Your task to perform on an android device: Open the map Image 0: 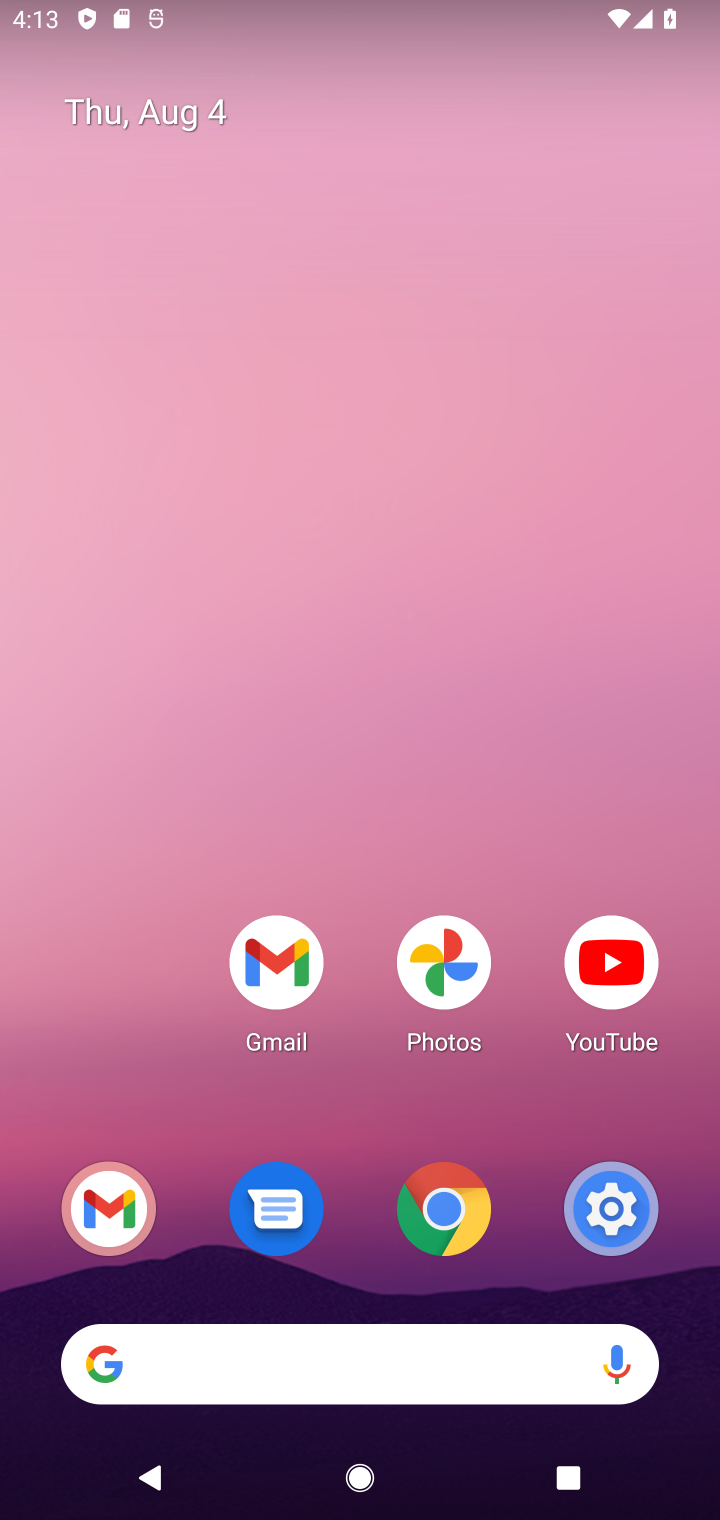
Step 0: press back button
Your task to perform on an android device: Open the map Image 1: 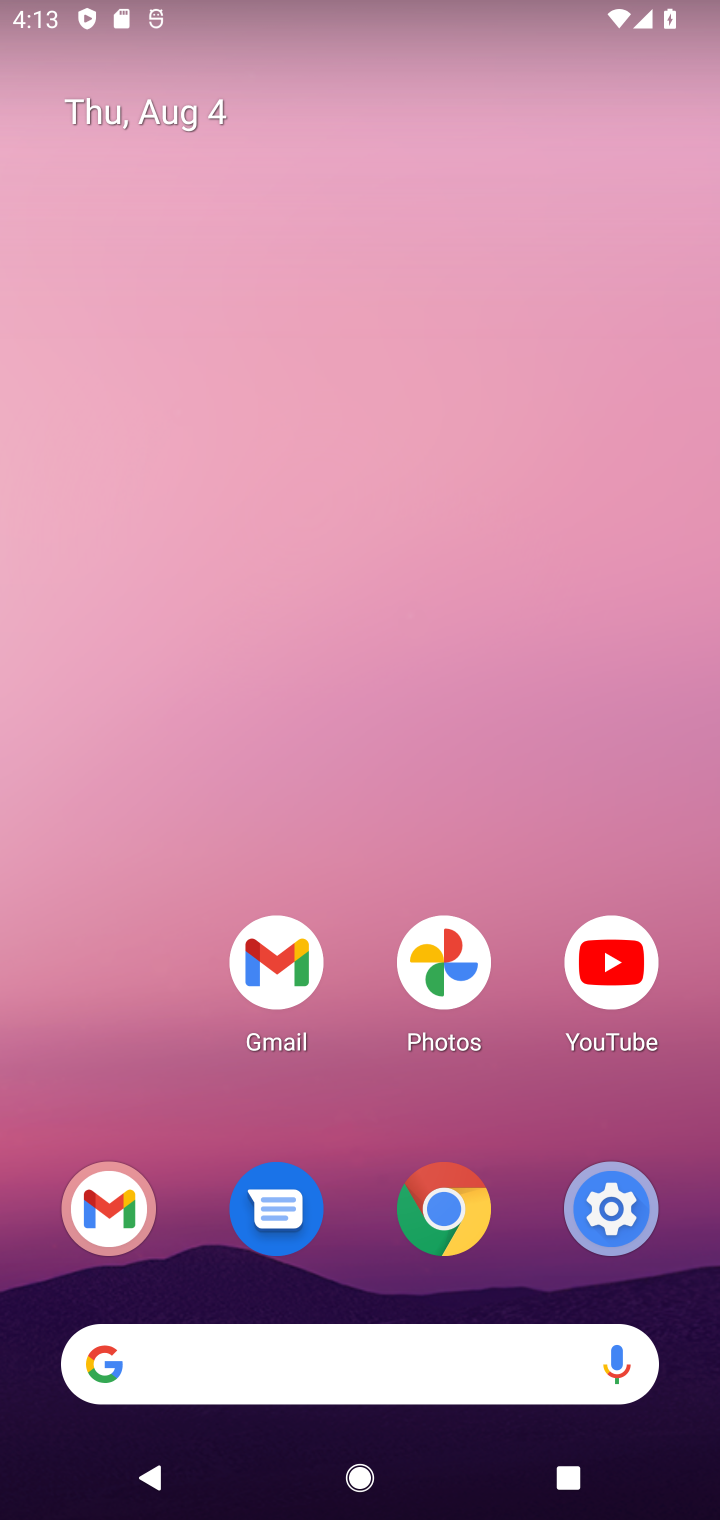
Step 1: drag from (350, 1081) to (469, 296)
Your task to perform on an android device: Open the map Image 2: 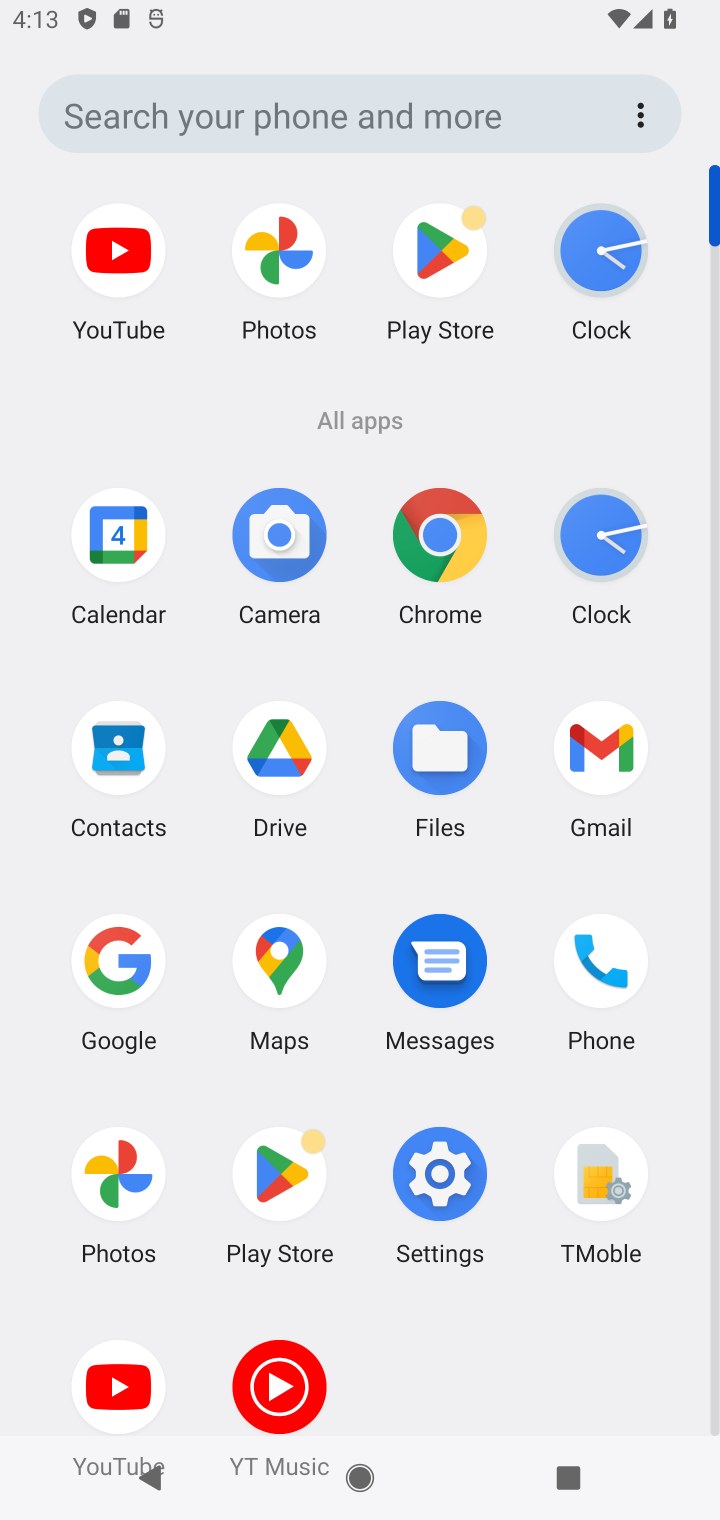
Step 2: click (290, 965)
Your task to perform on an android device: Open the map Image 3: 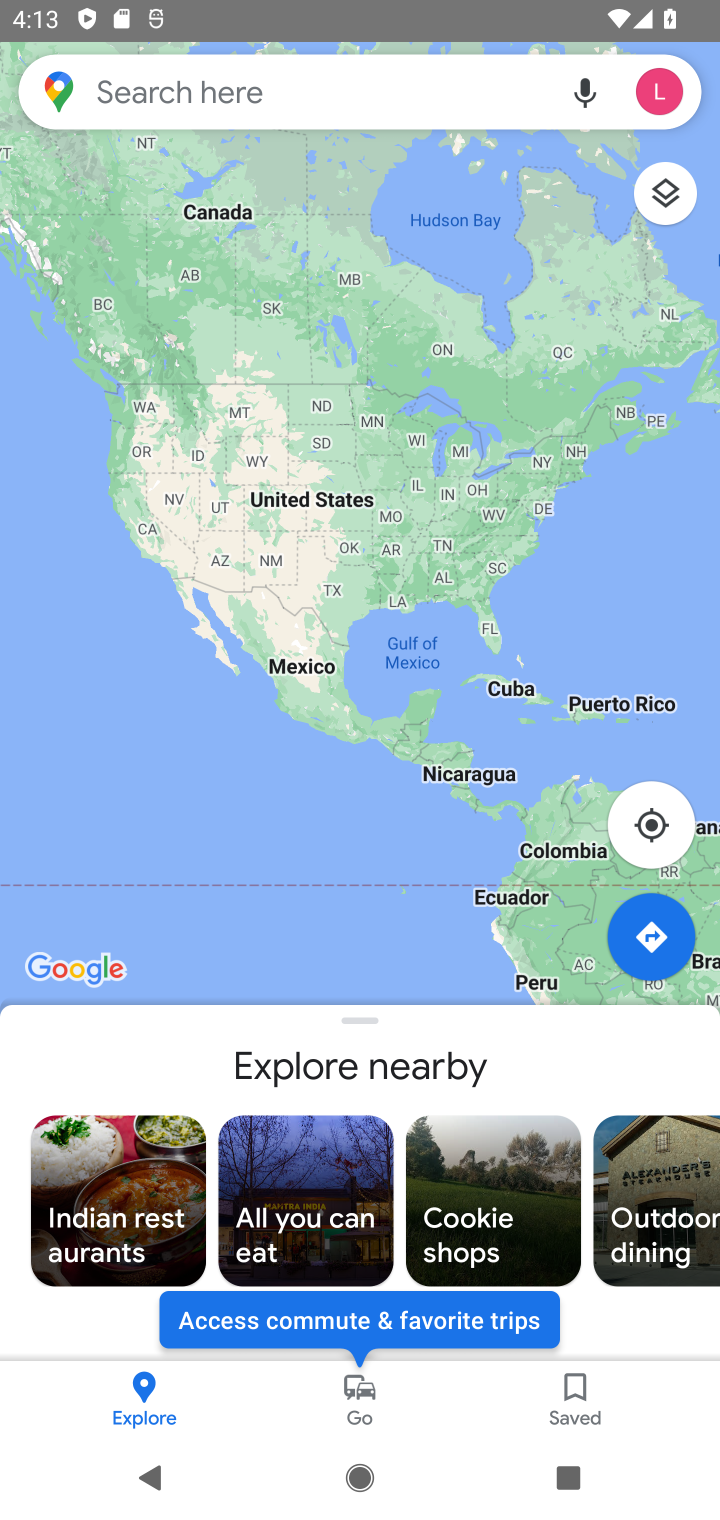
Step 3: task complete